Your task to perform on an android device: move an email to a new category in the gmail app Image 0: 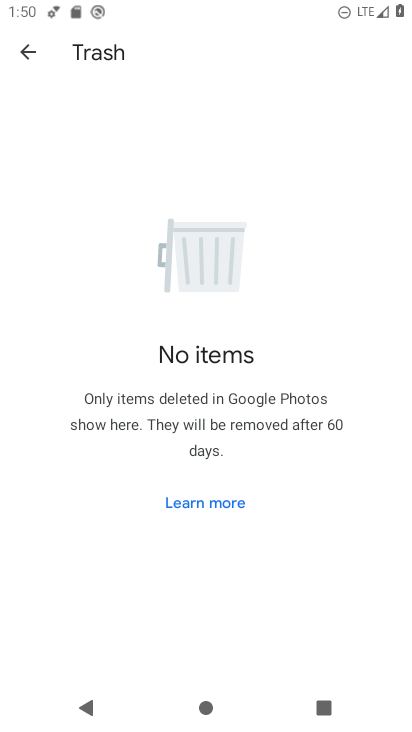
Step 0: click (15, 47)
Your task to perform on an android device: move an email to a new category in the gmail app Image 1: 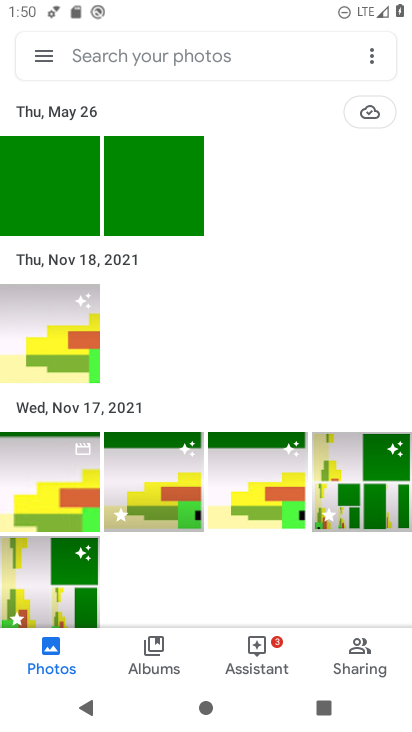
Step 1: press home button
Your task to perform on an android device: move an email to a new category in the gmail app Image 2: 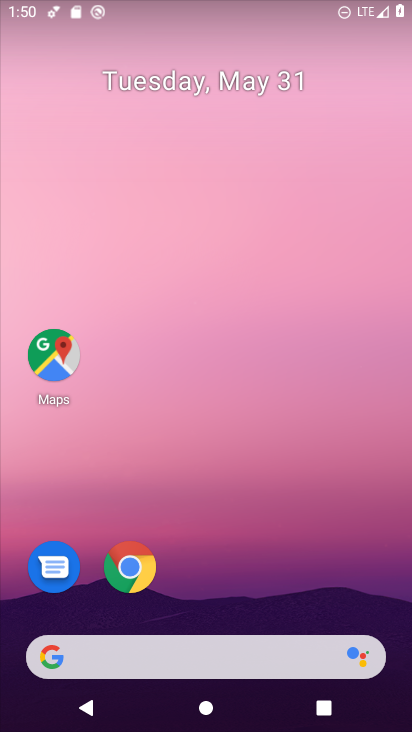
Step 2: drag from (183, 540) to (158, 233)
Your task to perform on an android device: move an email to a new category in the gmail app Image 3: 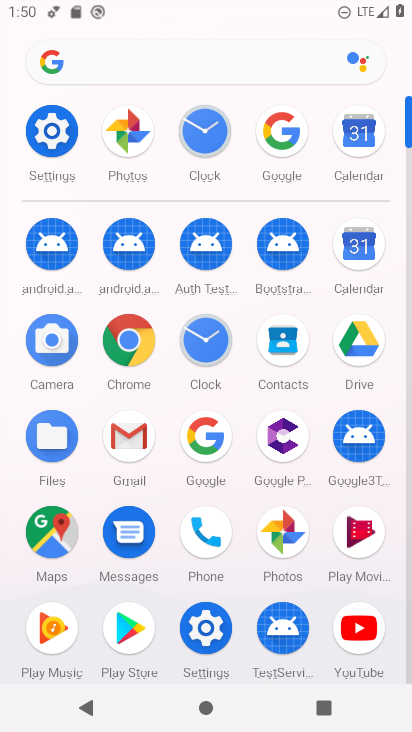
Step 3: click (152, 440)
Your task to perform on an android device: move an email to a new category in the gmail app Image 4: 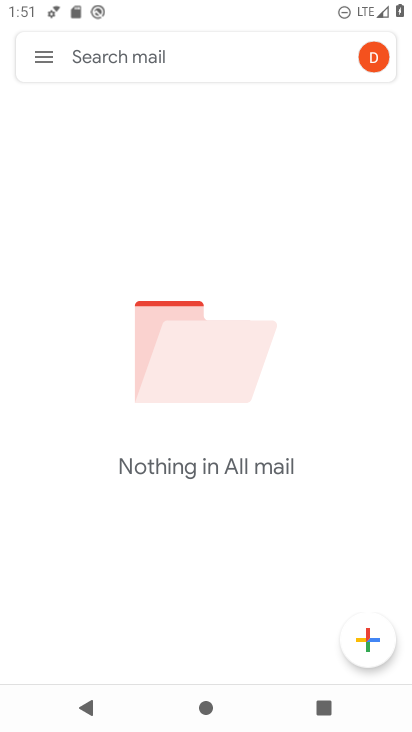
Step 4: task complete